Your task to perform on an android device: When is my next appointment? Image 0: 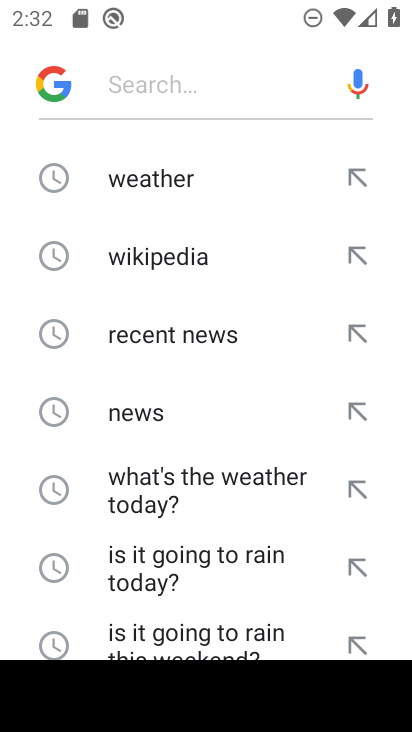
Step 0: press home button
Your task to perform on an android device: When is my next appointment? Image 1: 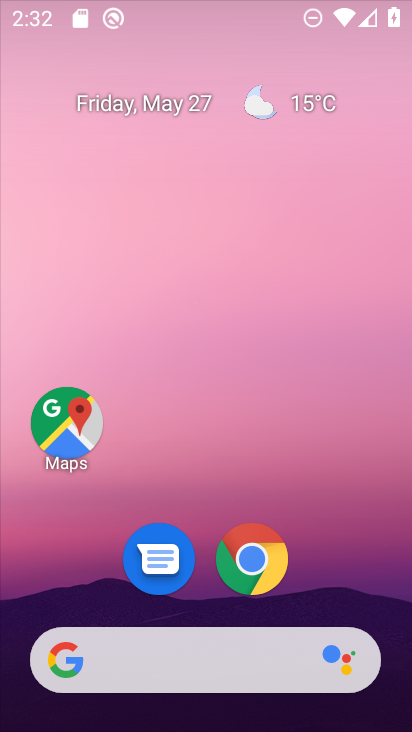
Step 1: drag from (328, 675) to (306, 1)
Your task to perform on an android device: When is my next appointment? Image 2: 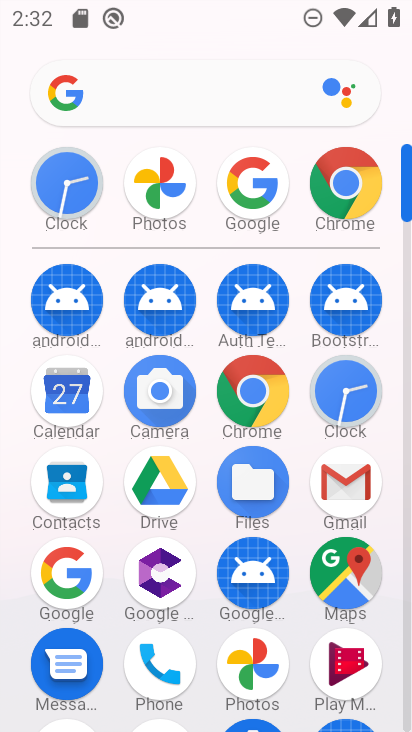
Step 2: click (73, 386)
Your task to perform on an android device: When is my next appointment? Image 3: 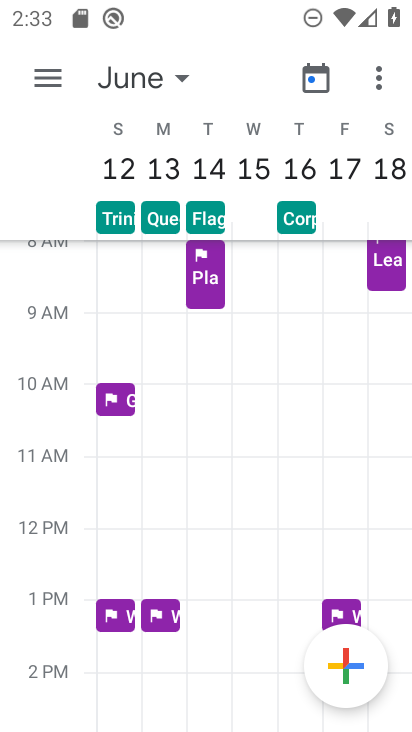
Step 3: click (170, 77)
Your task to perform on an android device: When is my next appointment? Image 4: 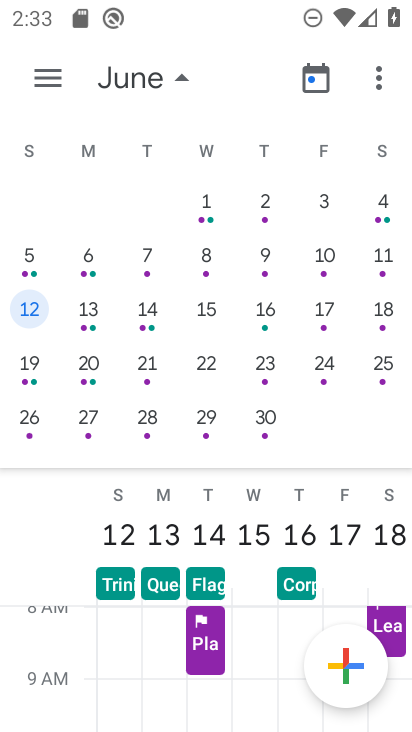
Step 4: task complete